Your task to perform on an android device: open a bookmark in the chrome app Image 0: 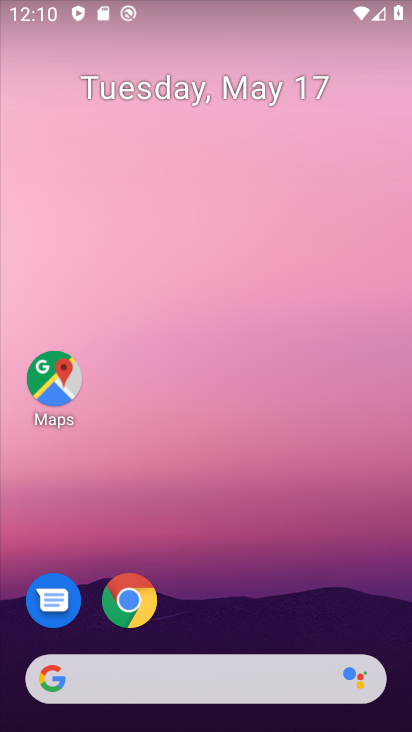
Step 0: click (127, 607)
Your task to perform on an android device: open a bookmark in the chrome app Image 1: 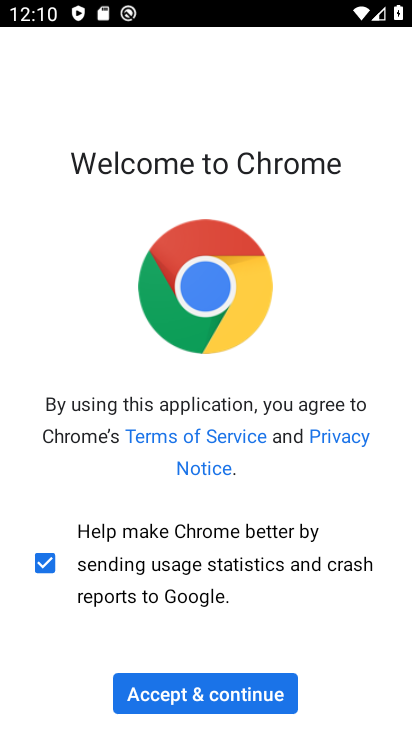
Step 1: click (182, 696)
Your task to perform on an android device: open a bookmark in the chrome app Image 2: 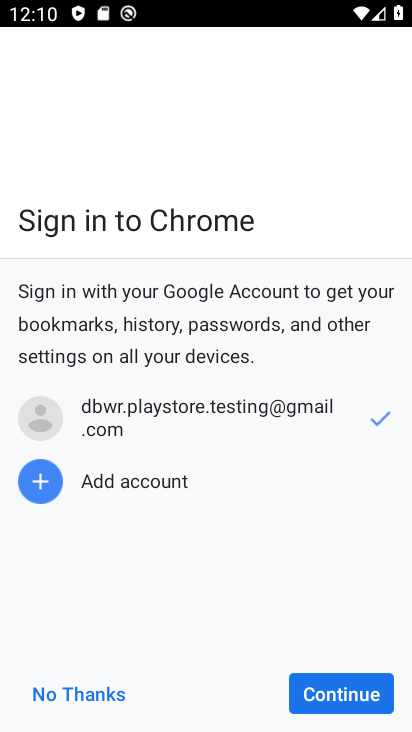
Step 2: click (337, 707)
Your task to perform on an android device: open a bookmark in the chrome app Image 3: 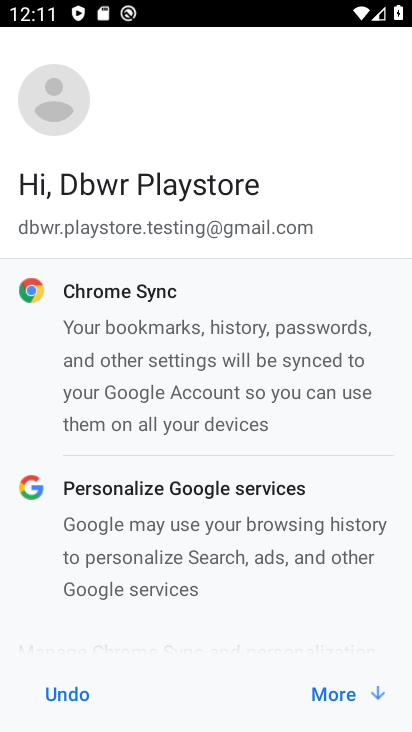
Step 3: click (318, 687)
Your task to perform on an android device: open a bookmark in the chrome app Image 4: 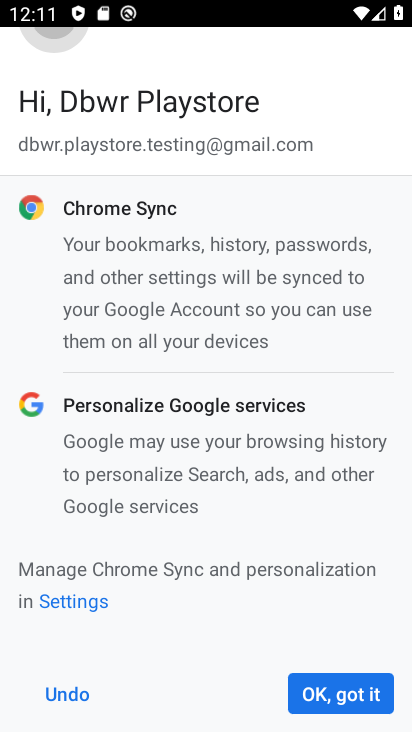
Step 4: click (319, 691)
Your task to perform on an android device: open a bookmark in the chrome app Image 5: 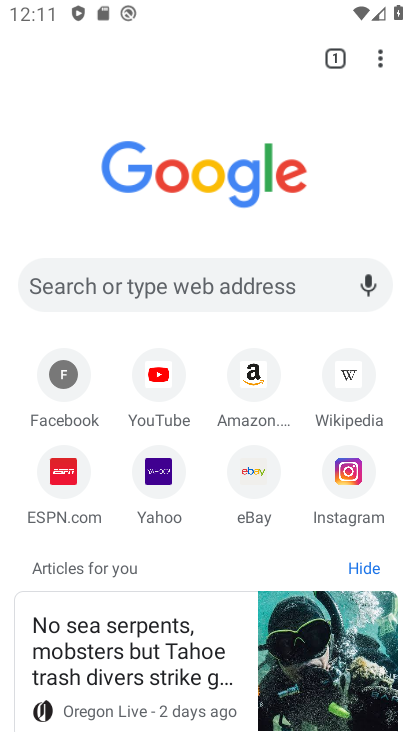
Step 5: click (380, 61)
Your task to perform on an android device: open a bookmark in the chrome app Image 6: 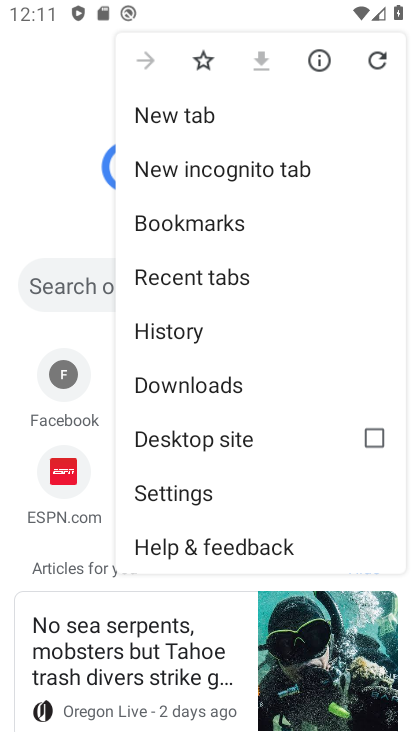
Step 6: click (176, 212)
Your task to perform on an android device: open a bookmark in the chrome app Image 7: 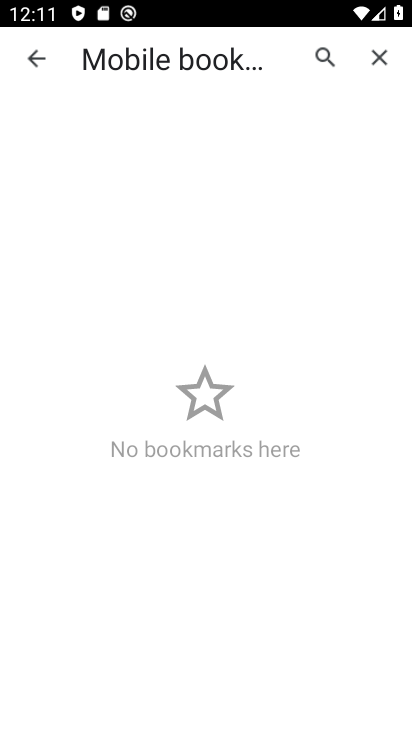
Step 7: task complete